Your task to perform on an android device: Go to location settings Image 0: 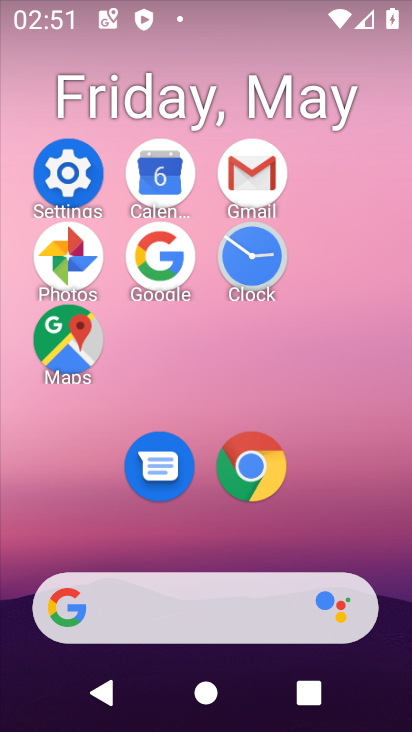
Step 0: click (79, 159)
Your task to perform on an android device: Go to location settings Image 1: 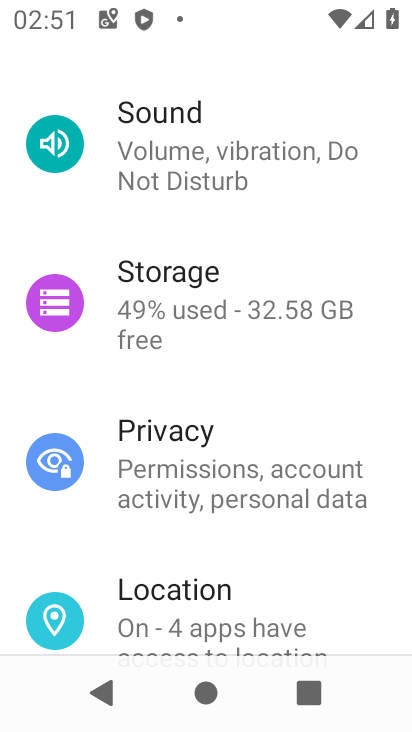
Step 1: click (197, 595)
Your task to perform on an android device: Go to location settings Image 2: 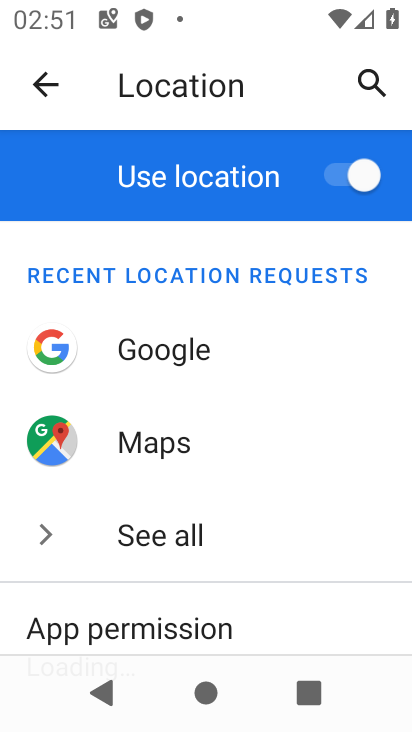
Step 2: task complete